Your task to perform on an android device: Go to ESPN.com Image 0: 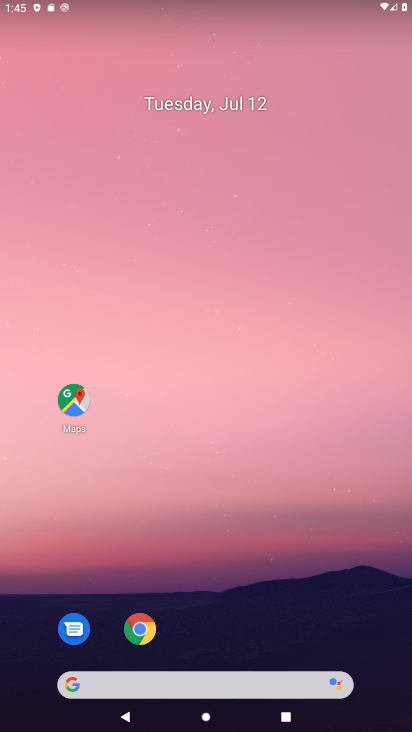
Step 0: click (142, 621)
Your task to perform on an android device: Go to ESPN.com Image 1: 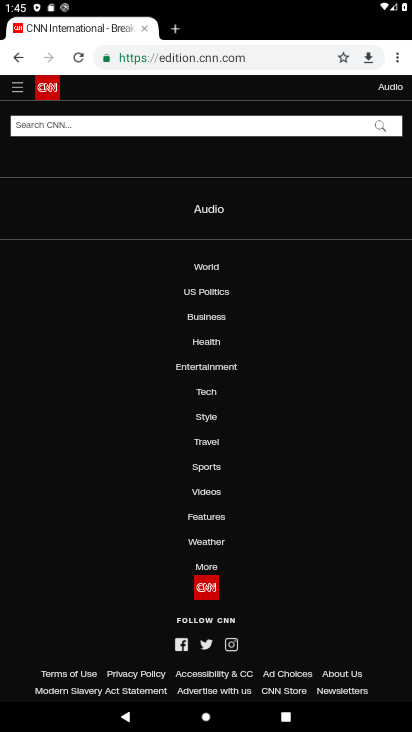
Step 1: click (172, 31)
Your task to perform on an android device: Go to ESPN.com Image 2: 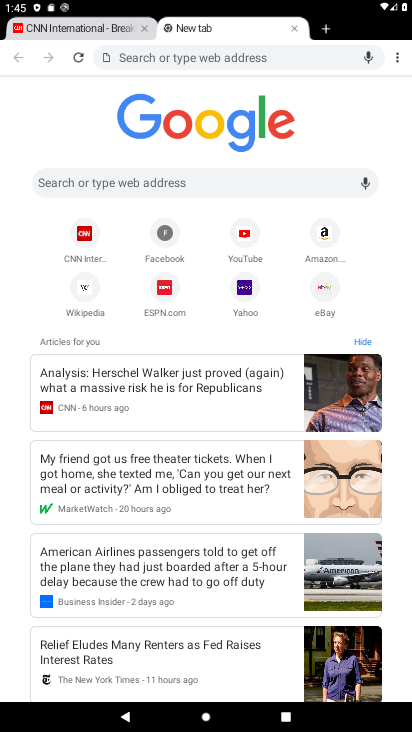
Step 2: click (158, 298)
Your task to perform on an android device: Go to ESPN.com Image 3: 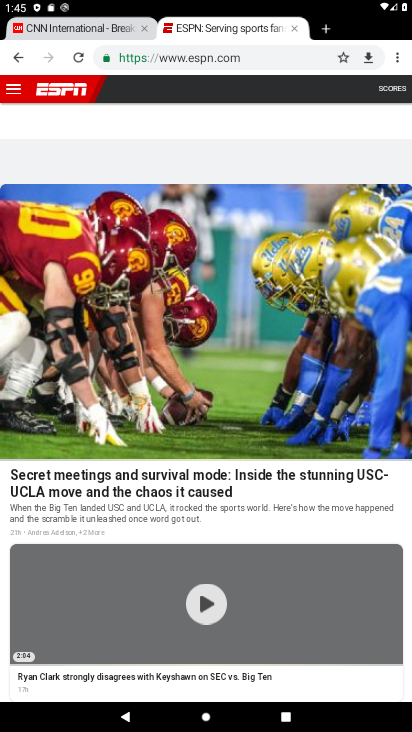
Step 3: task complete